Your task to perform on an android device: Go to Yahoo.com Image 0: 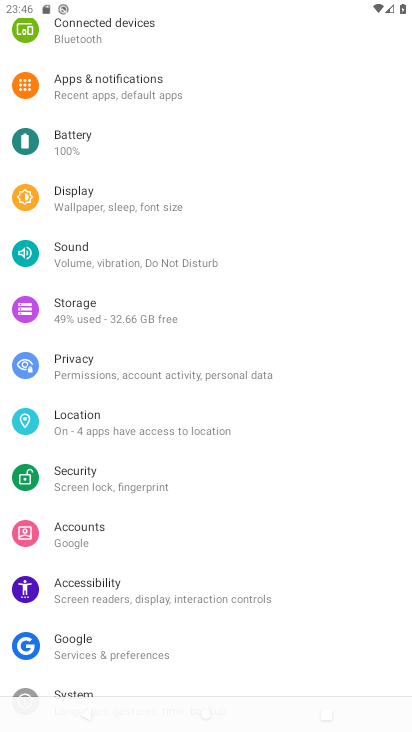
Step 0: press home button
Your task to perform on an android device: Go to Yahoo.com Image 1: 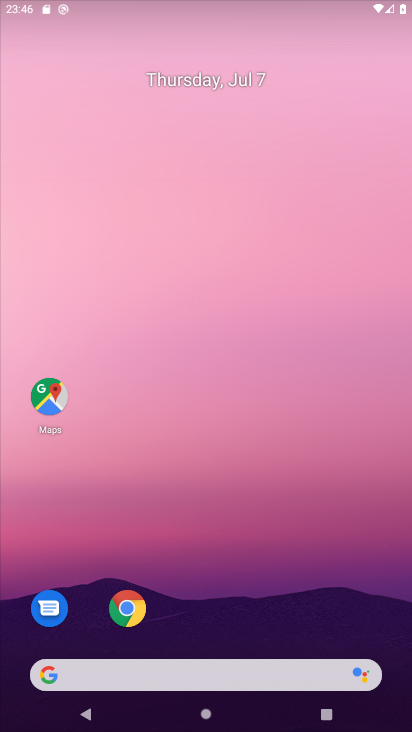
Step 1: drag from (241, 632) to (168, 237)
Your task to perform on an android device: Go to Yahoo.com Image 2: 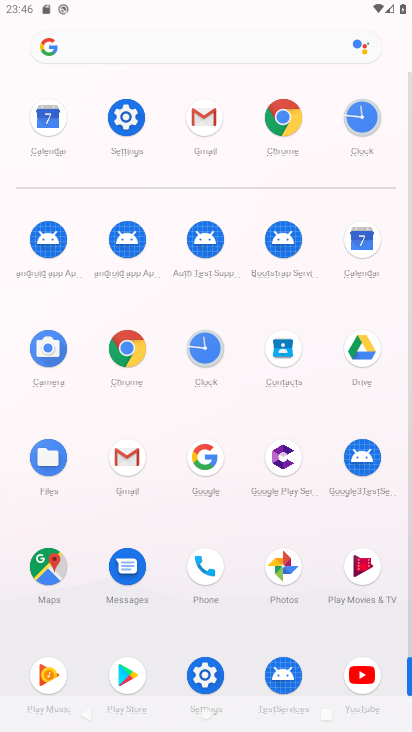
Step 2: click (121, 338)
Your task to perform on an android device: Go to Yahoo.com Image 3: 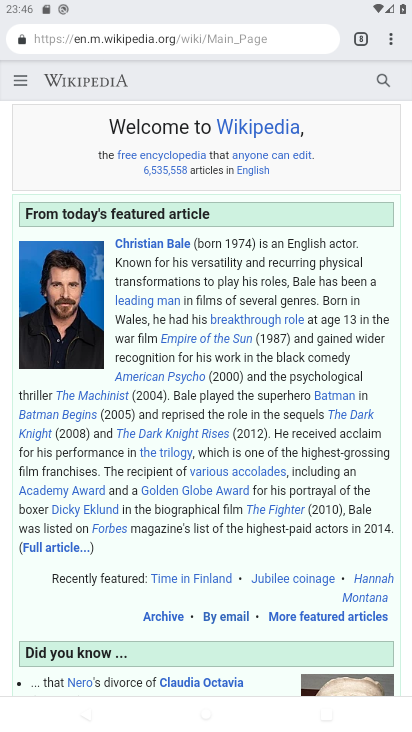
Step 3: click (389, 40)
Your task to perform on an android device: Go to Yahoo.com Image 4: 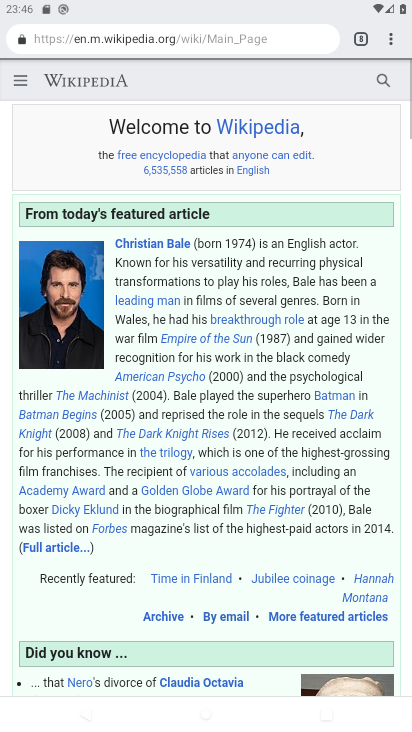
Step 4: click (389, 40)
Your task to perform on an android device: Go to Yahoo.com Image 5: 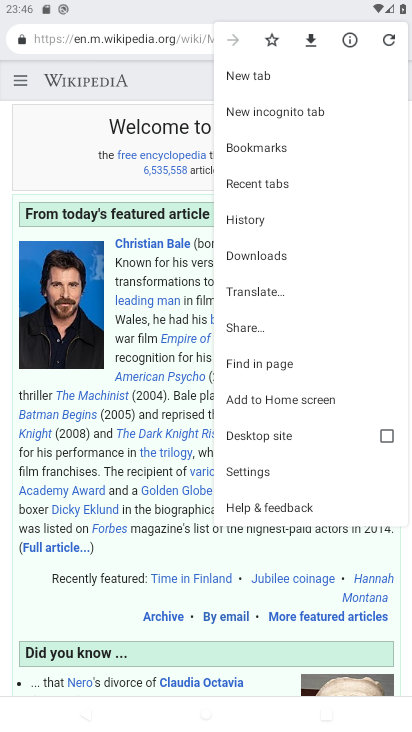
Step 5: click (281, 72)
Your task to perform on an android device: Go to Yahoo.com Image 6: 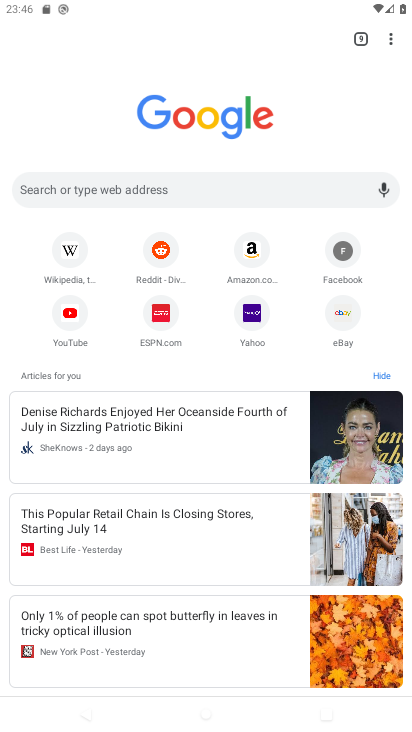
Step 6: click (259, 311)
Your task to perform on an android device: Go to Yahoo.com Image 7: 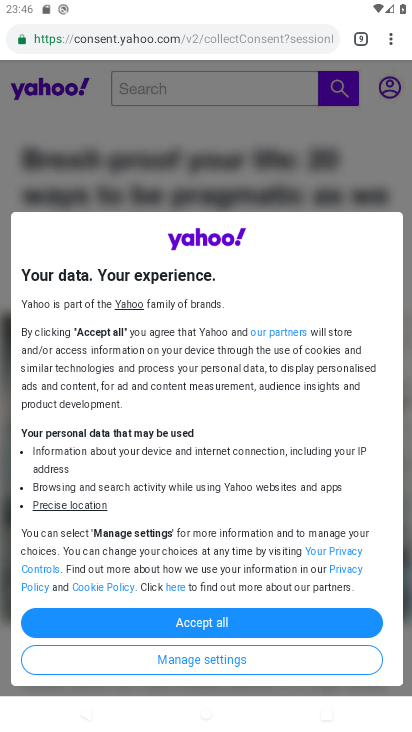
Step 7: task complete